Your task to perform on an android device: install app "Google Docs" Image 0: 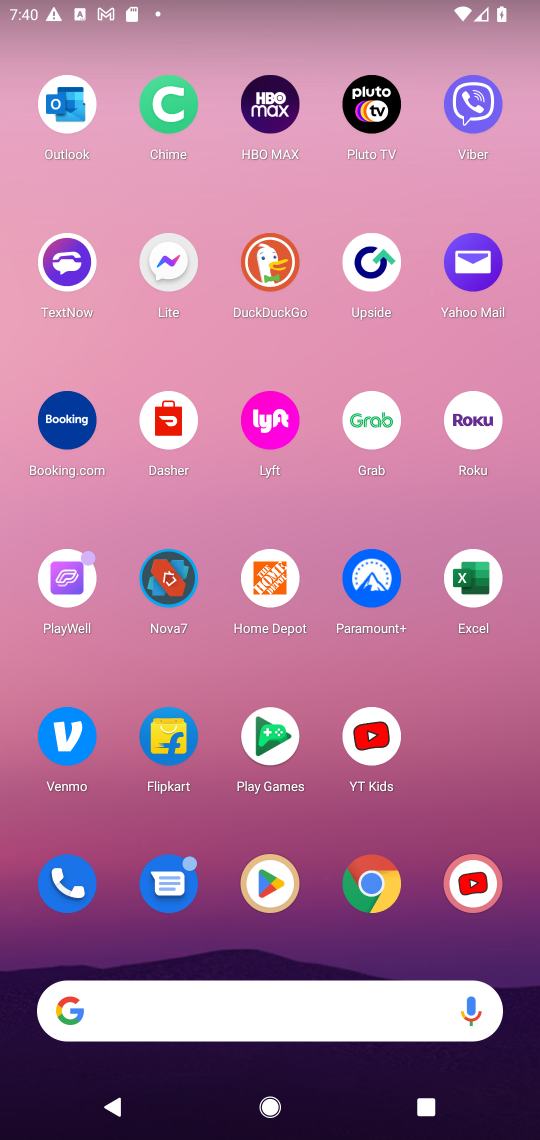
Step 0: click (264, 886)
Your task to perform on an android device: install app "Google Docs" Image 1: 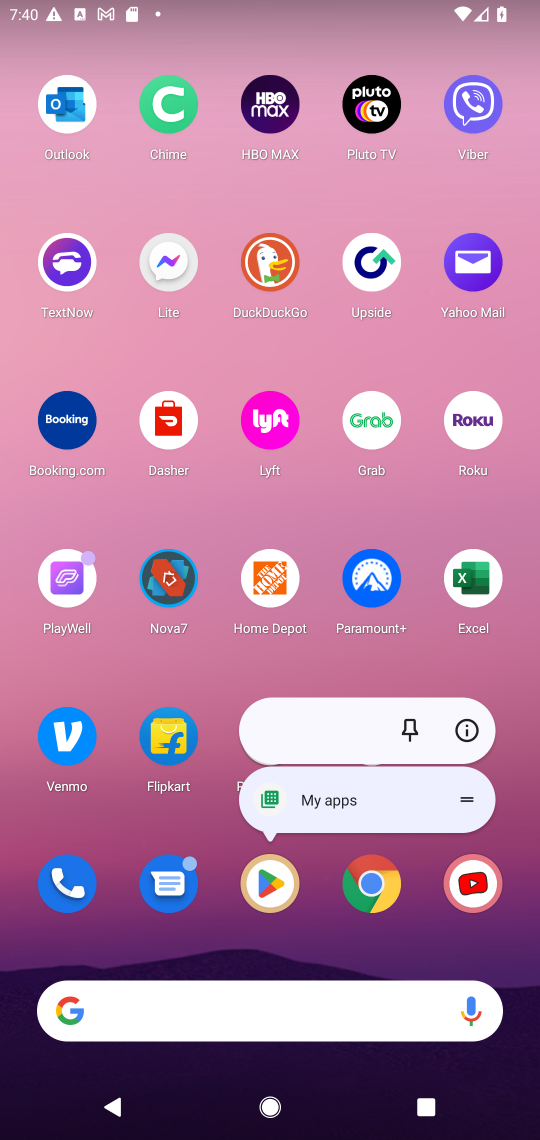
Step 1: click (270, 884)
Your task to perform on an android device: install app "Google Docs" Image 2: 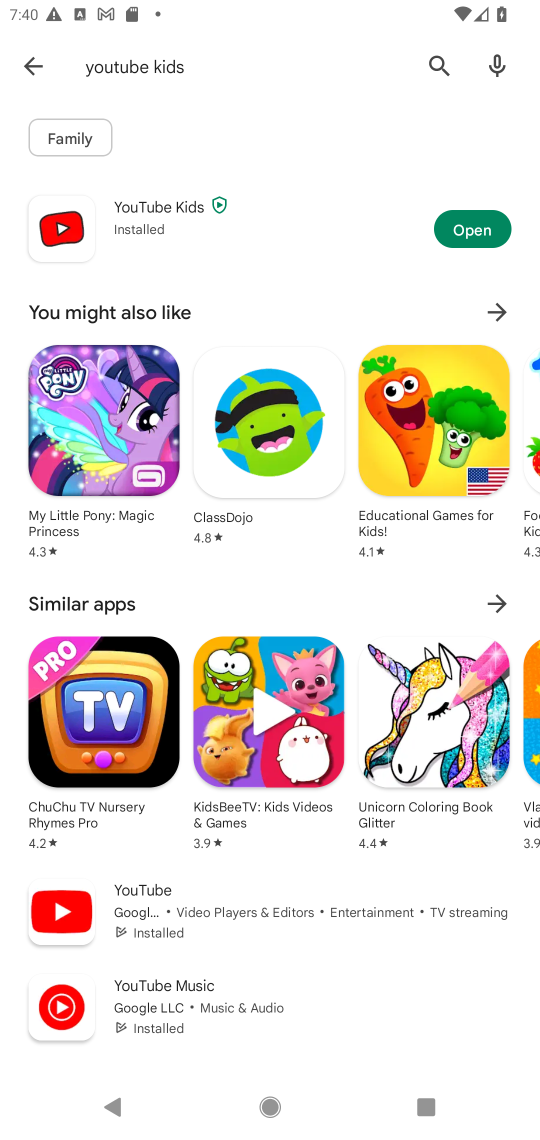
Step 2: click (433, 61)
Your task to perform on an android device: install app "Google Docs" Image 3: 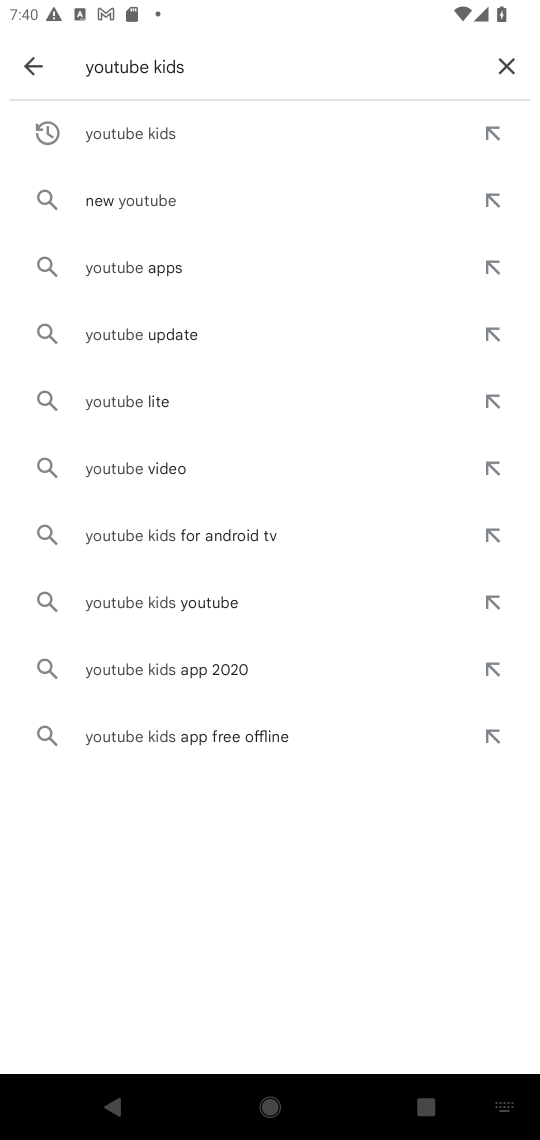
Step 3: click (498, 69)
Your task to perform on an android device: install app "Google Docs" Image 4: 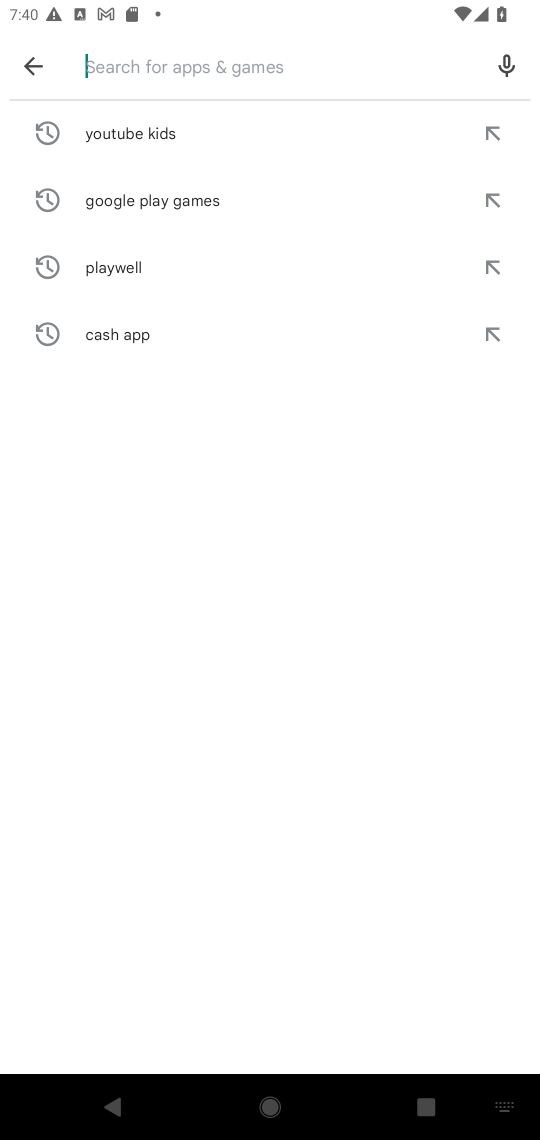
Step 4: type "Google Docs"
Your task to perform on an android device: install app "Google Docs" Image 5: 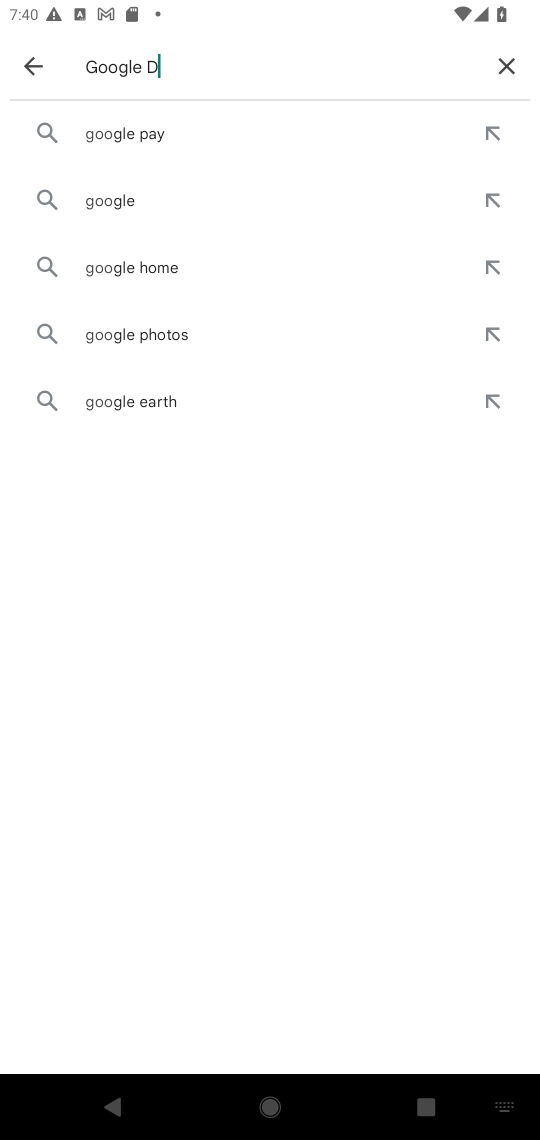
Step 5: type ""
Your task to perform on an android device: install app "Google Docs" Image 6: 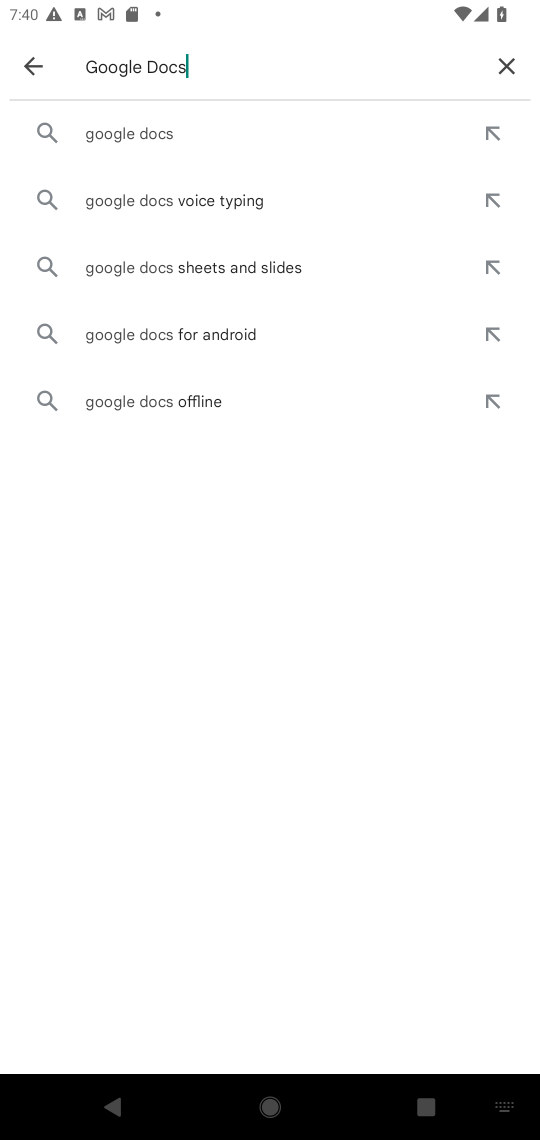
Step 6: click (229, 137)
Your task to perform on an android device: install app "Google Docs" Image 7: 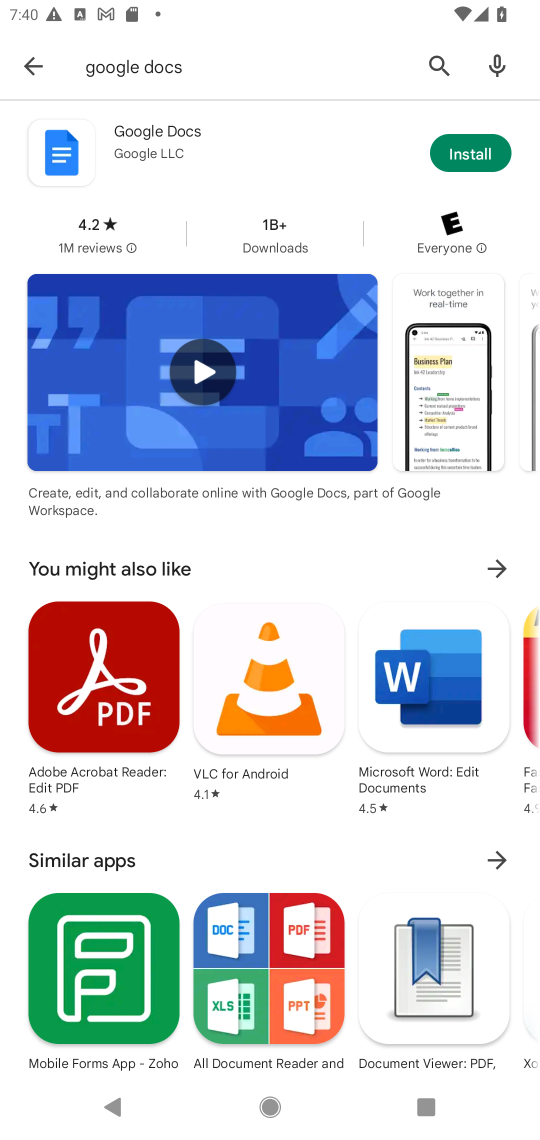
Step 7: click (479, 160)
Your task to perform on an android device: install app "Google Docs" Image 8: 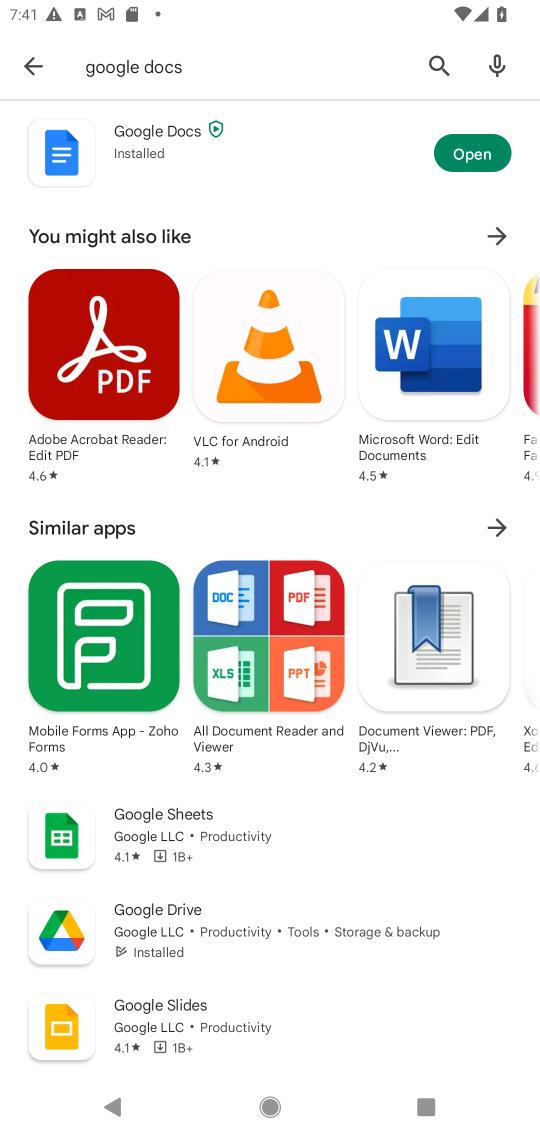
Step 8: task complete